Your task to perform on an android device: Open network settings Image 0: 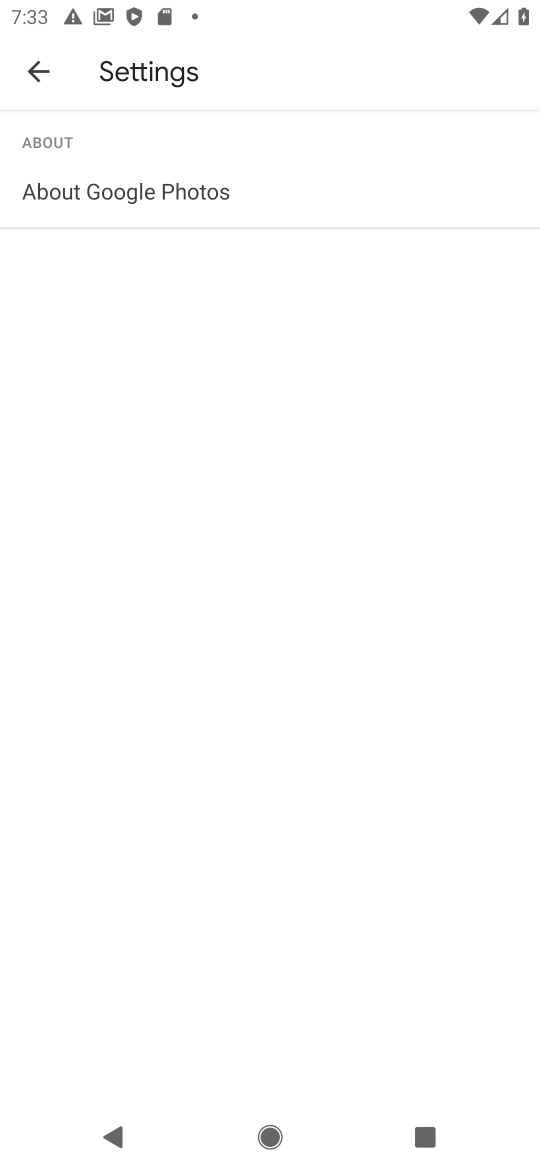
Step 0: press home button
Your task to perform on an android device: Open network settings Image 1: 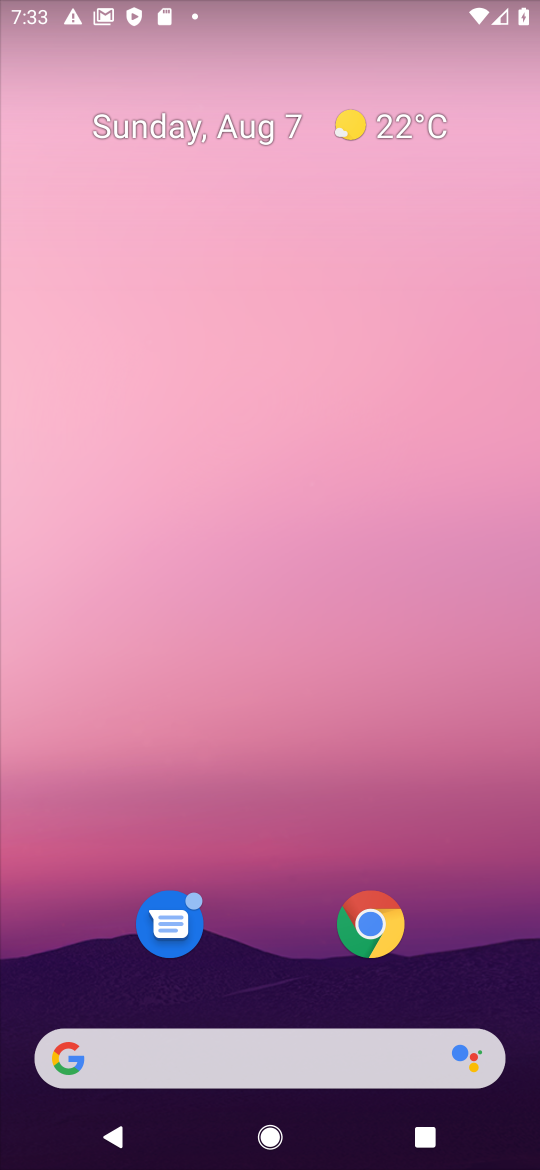
Step 1: drag from (254, 827) to (305, 18)
Your task to perform on an android device: Open network settings Image 2: 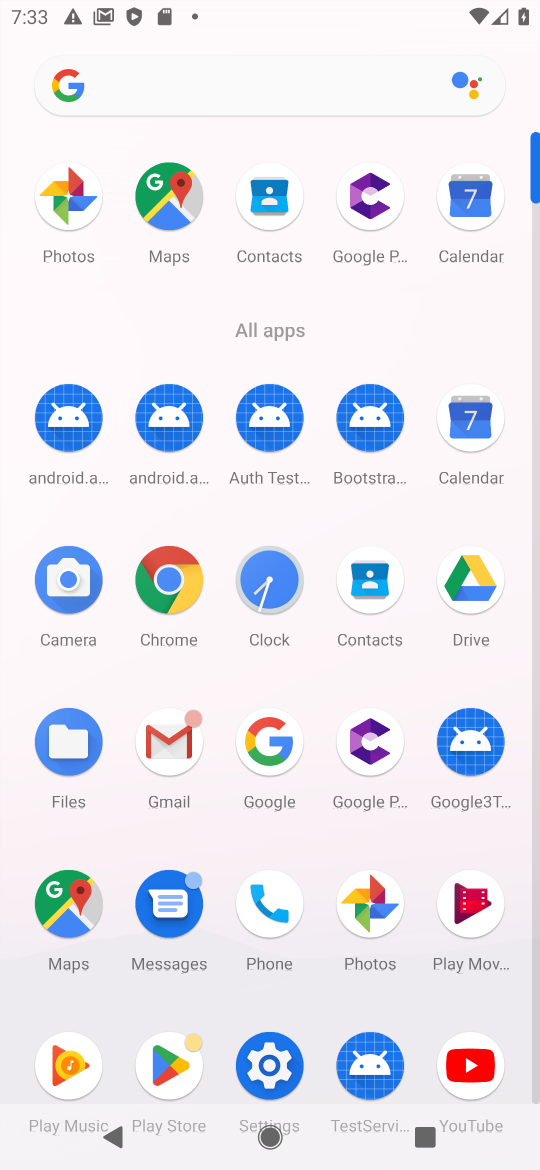
Step 2: click (272, 1054)
Your task to perform on an android device: Open network settings Image 3: 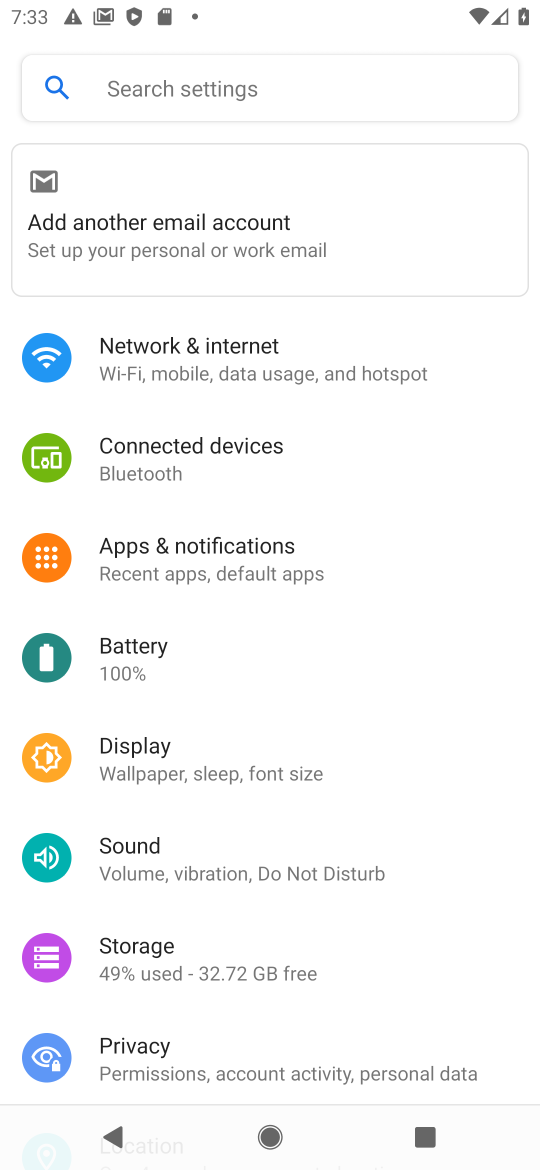
Step 3: click (326, 351)
Your task to perform on an android device: Open network settings Image 4: 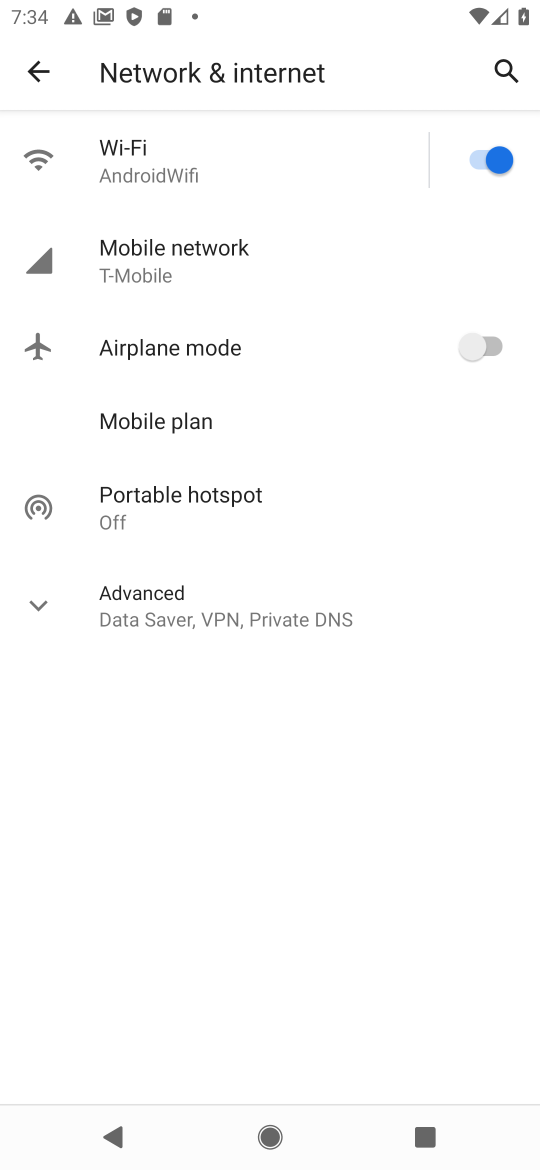
Step 4: task complete